Your task to perform on an android device: turn on data saver in the chrome app Image 0: 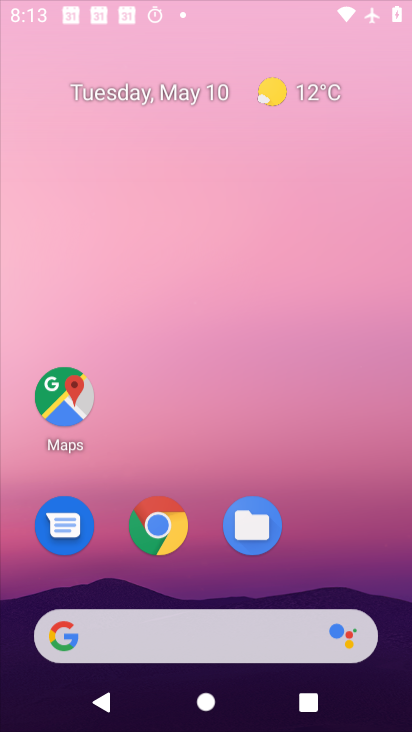
Step 0: drag from (202, 554) to (271, 127)
Your task to perform on an android device: turn on data saver in the chrome app Image 1: 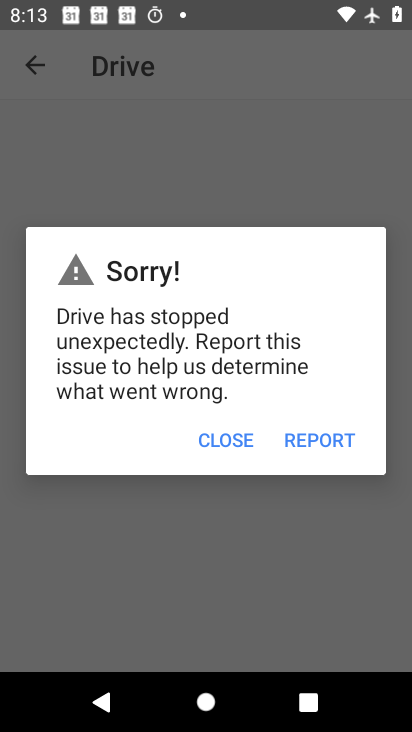
Step 1: press home button
Your task to perform on an android device: turn on data saver in the chrome app Image 2: 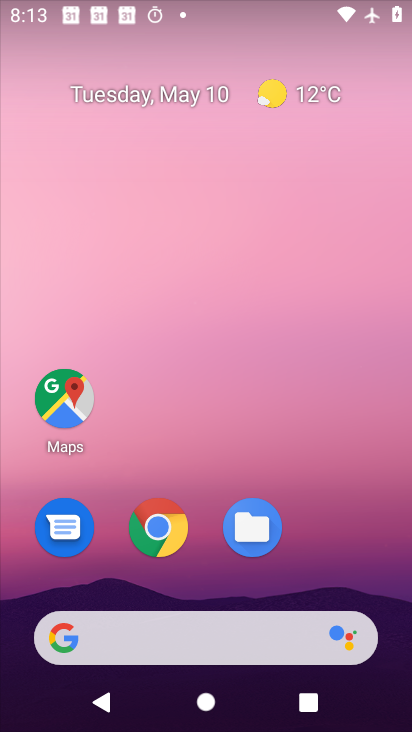
Step 2: click (155, 547)
Your task to perform on an android device: turn on data saver in the chrome app Image 3: 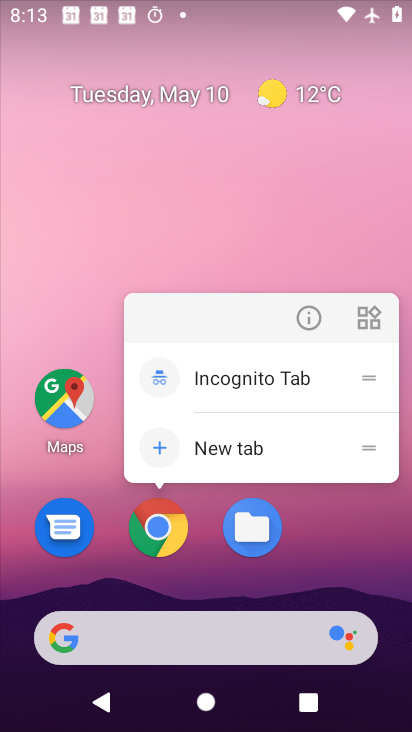
Step 3: click (161, 535)
Your task to perform on an android device: turn on data saver in the chrome app Image 4: 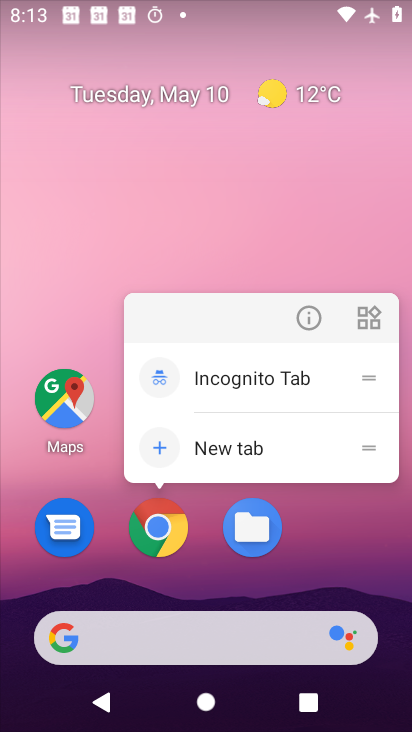
Step 4: click (161, 535)
Your task to perform on an android device: turn on data saver in the chrome app Image 5: 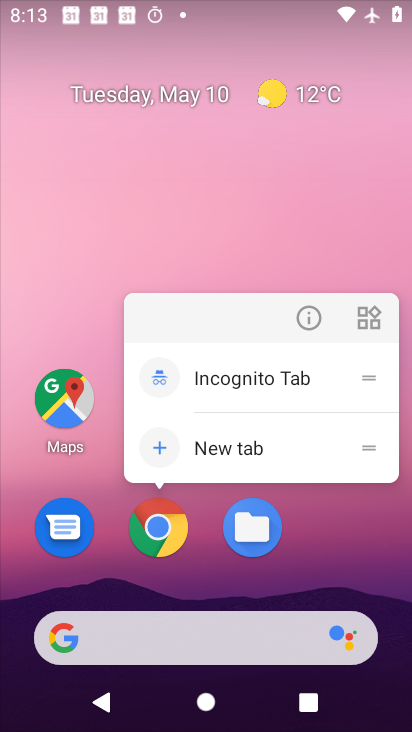
Step 5: click (162, 534)
Your task to perform on an android device: turn on data saver in the chrome app Image 6: 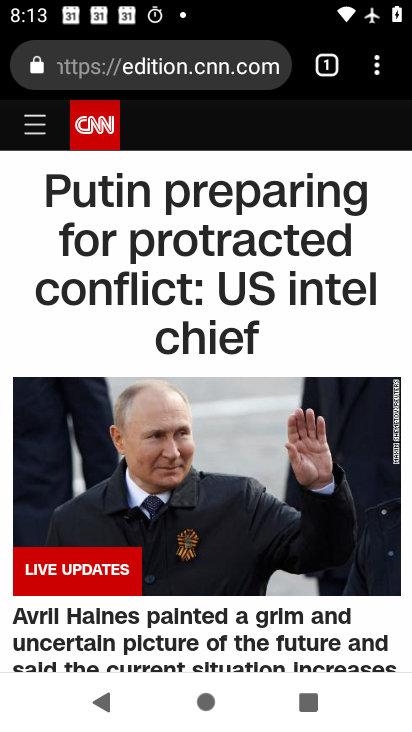
Step 6: click (388, 60)
Your task to perform on an android device: turn on data saver in the chrome app Image 7: 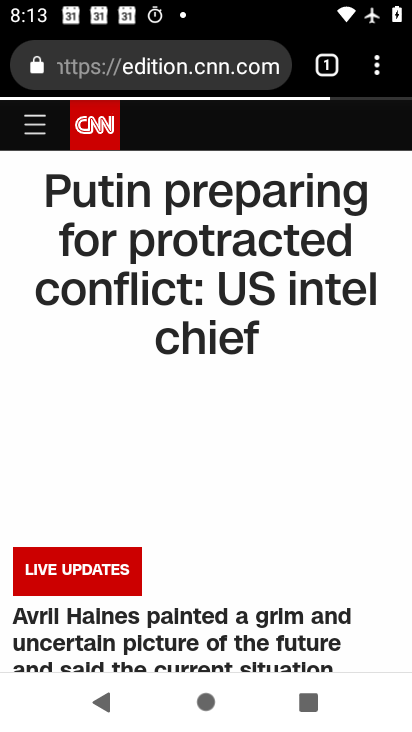
Step 7: drag from (388, 57) to (180, 580)
Your task to perform on an android device: turn on data saver in the chrome app Image 8: 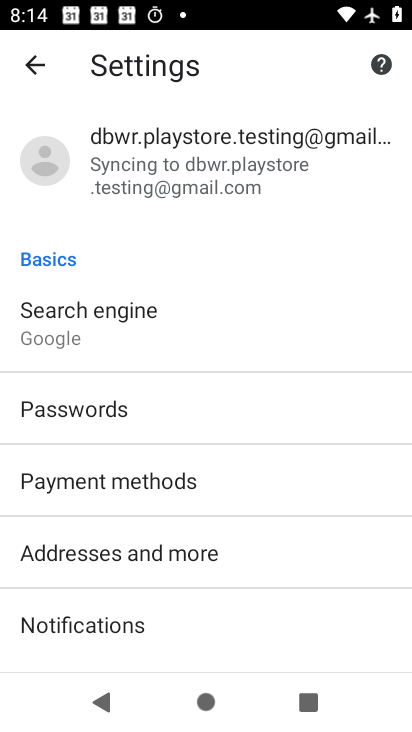
Step 8: drag from (201, 534) to (319, 185)
Your task to perform on an android device: turn on data saver in the chrome app Image 9: 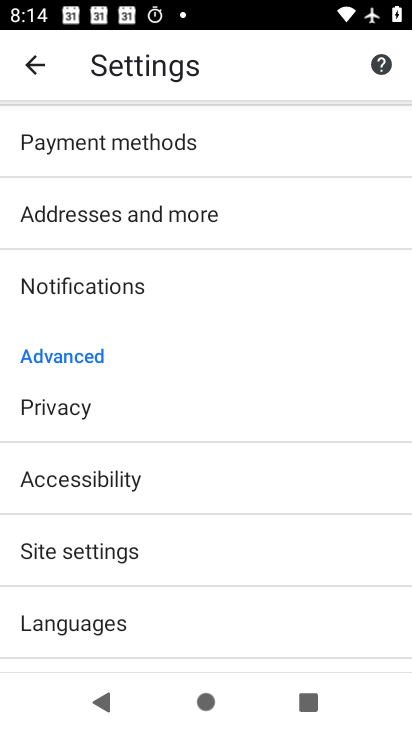
Step 9: drag from (144, 612) to (219, 288)
Your task to perform on an android device: turn on data saver in the chrome app Image 10: 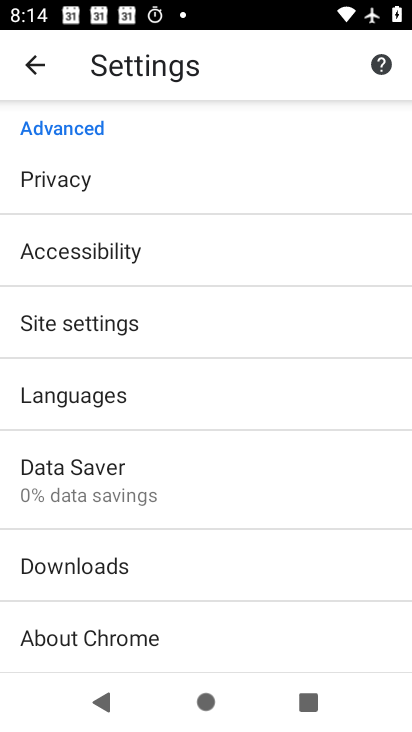
Step 10: click (183, 481)
Your task to perform on an android device: turn on data saver in the chrome app Image 11: 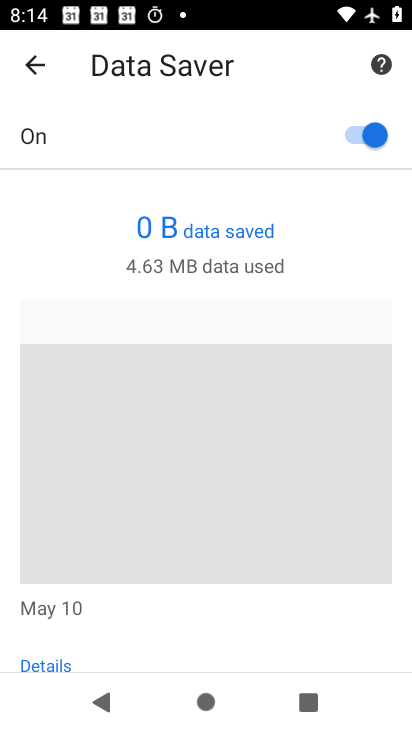
Step 11: task complete